Your task to perform on an android device: Play the last video I watched on Youtube Image 0: 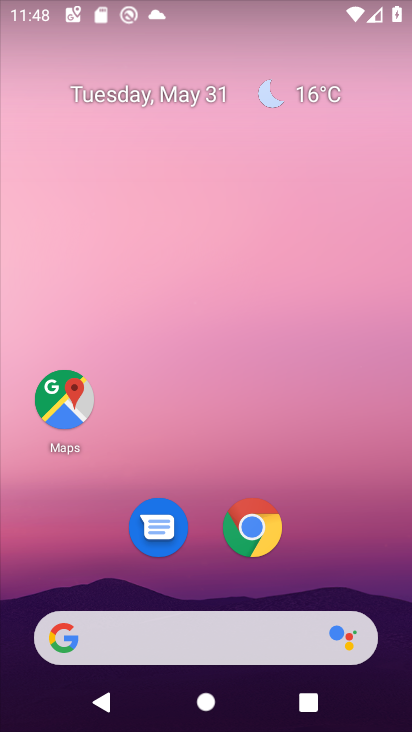
Step 0: drag from (361, 610) to (323, 9)
Your task to perform on an android device: Play the last video I watched on Youtube Image 1: 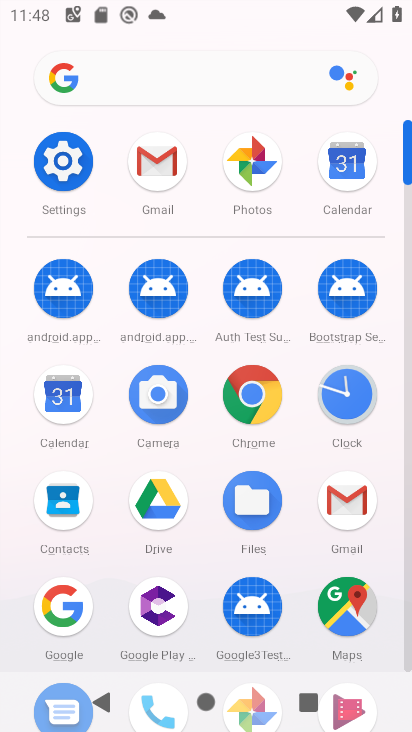
Step 1: click (411, 502)
Your task to perform on an android device: Play the last video I watched on Youtube Image 2: 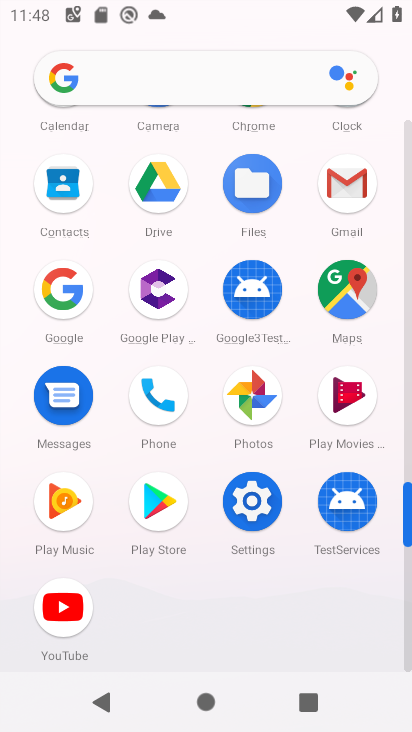
Step 2: click (59, 612)
Your task to perform on an android device: Play the last video I watched on Youtube Image 3: 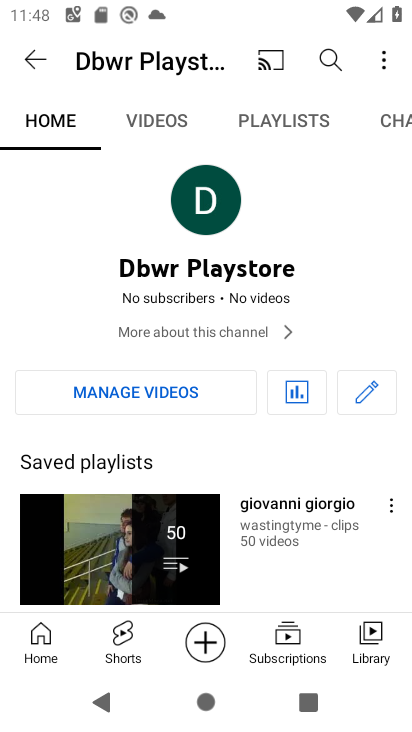
Step 3: click (373, 630)
Your task to perform on an android device: Play the last video I watched on Youtube Image 4: 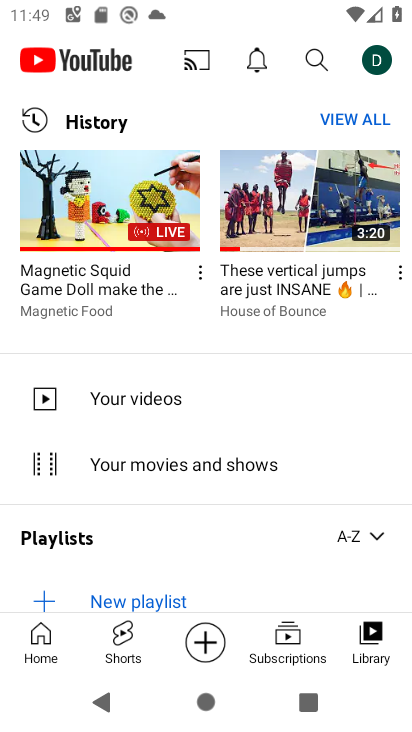
Step 4: click (80, 231)
Your task to perform on an android device: Play the last video I watched on Youtube Image 5: 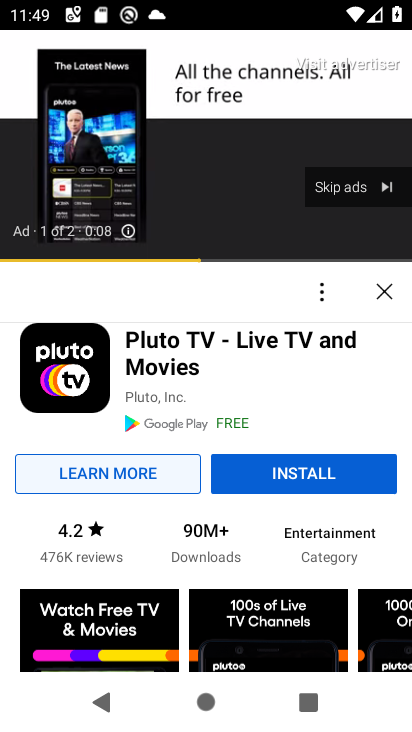
Step 5: click (325, 192)
Your task to perform on an android device: Play the last video I watched on Youtube Image 6: 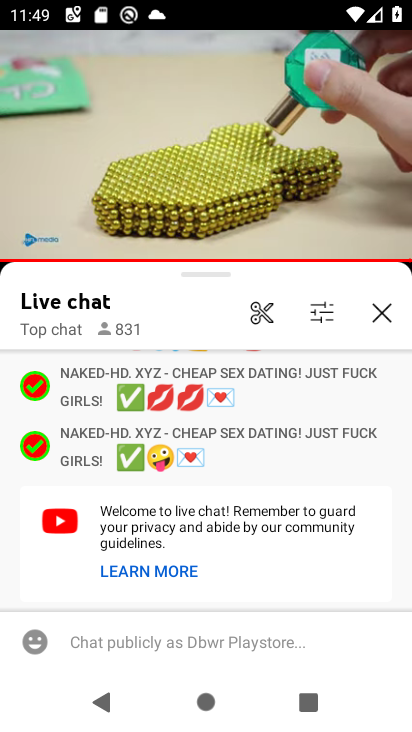
Step 6: click (237, 152)
Your task to perform on an android device: Play the last video I watched on Youtube Image 7: 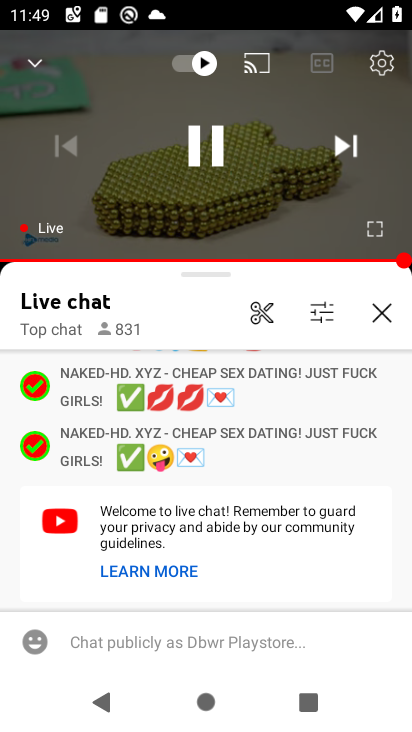
Step 7: click (220, 151)
Your task to perform on an android device: Play the last video I watched on Youtube Image 8: 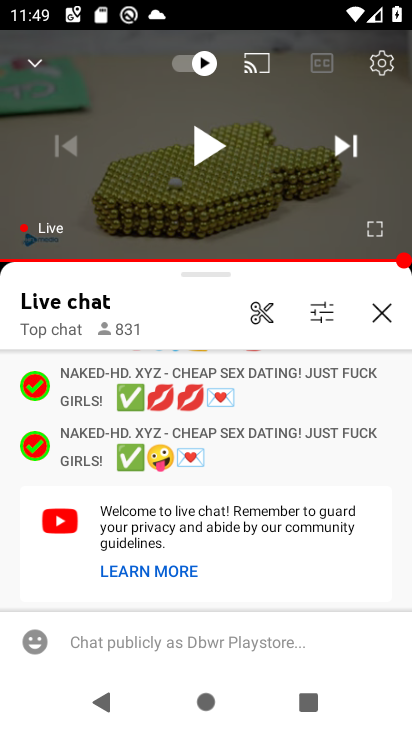
Step 8: task complete